Your task to perform on an android device: change the clock style Image 0: 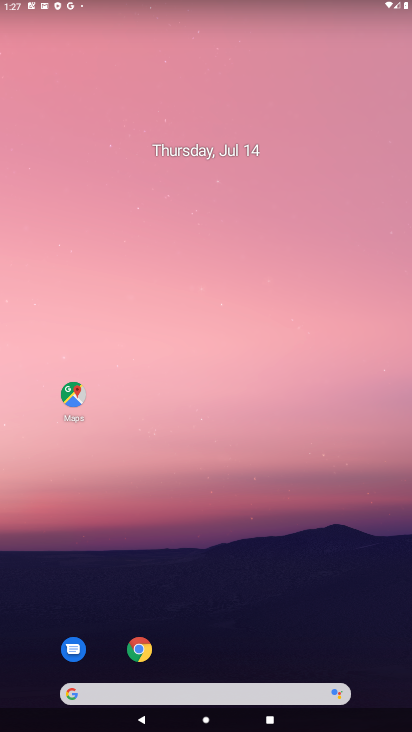
Step 0: drag from (389, 667) to (190, 95)
Your task to perform on an android device: change the clock style Image 1: 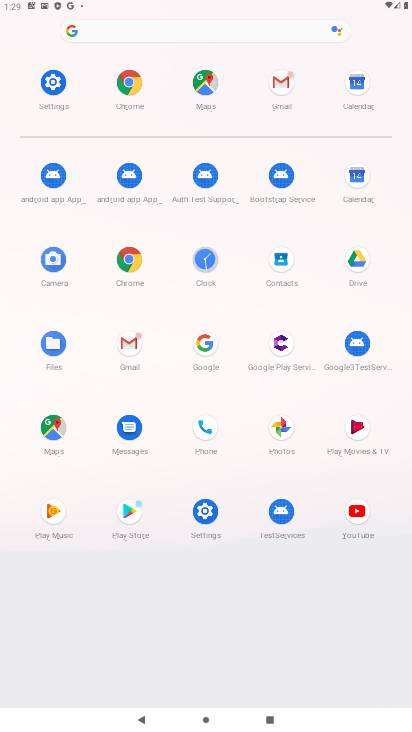
Step 1: click (210, 267)
Your task to perform on an android device: change the clock style Image 2: 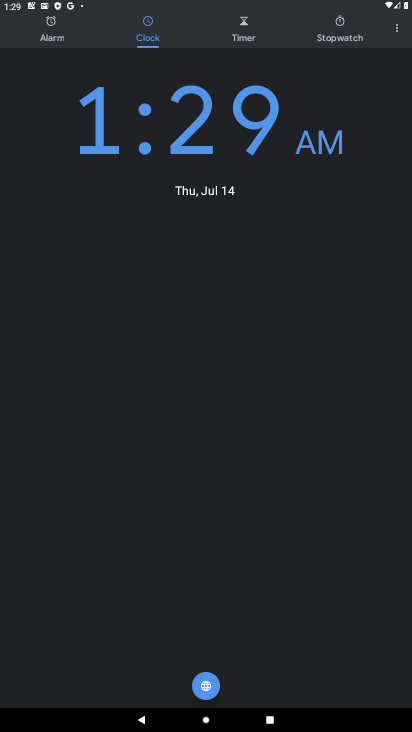
Step 2: click (392, 33)
Your task to perform on an android device: change the clock style Image 3: 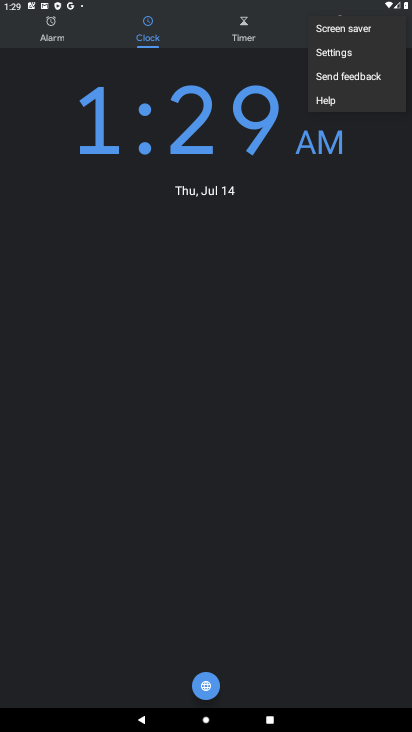
Step 3: click (346, 53)
Your task to perform on an android device: change the clock style Image 4: 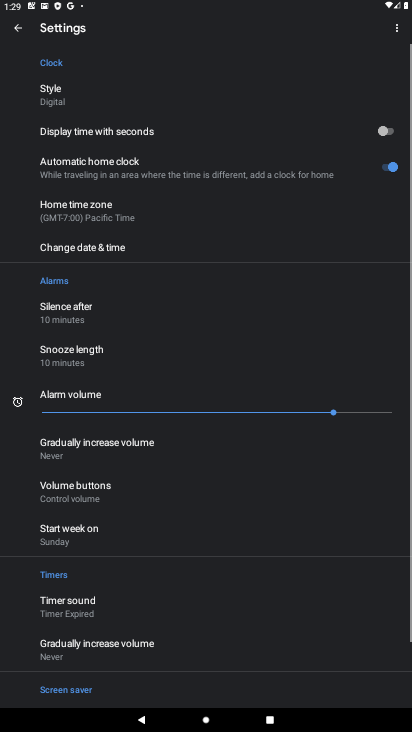
Step 4: click (84, 102)
Your task to perform on an android device: change the clock style Image 5: 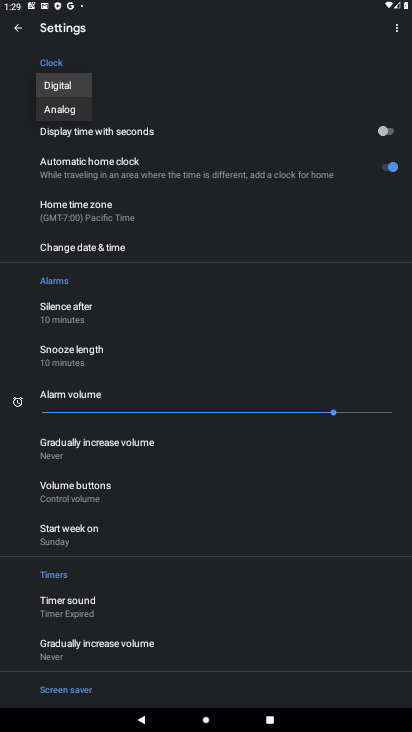
Step 5: click (62, 108)
Your task to perform on an android device: change the clock style Image 6: 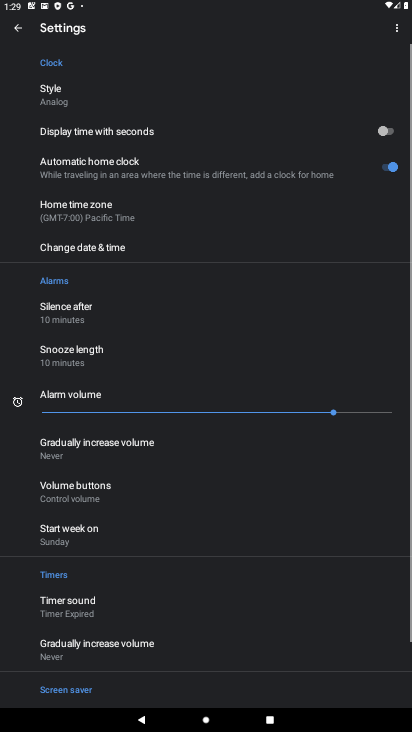
Step 6: task complete